Your task to perform on an android device: Open the calendar and show me this week's events Image 0: 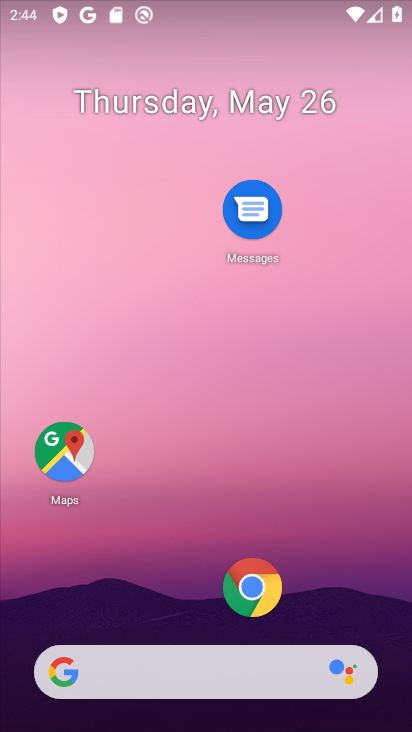
Step 0: drag from (149, 613) to (158, 3)
Your task to perform on an android device: Open the calendar and show me this week's events Image 1: 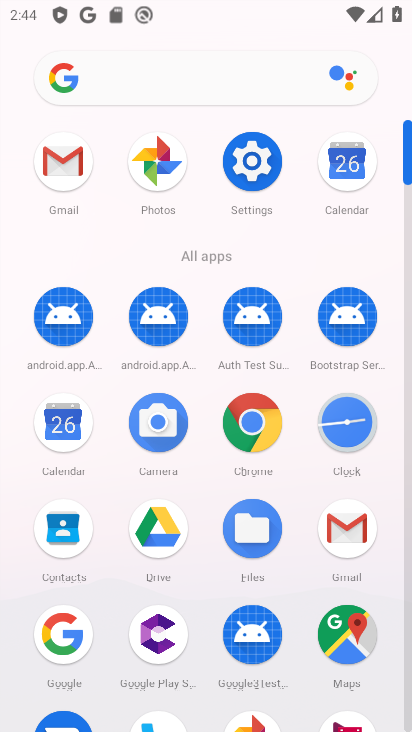
Step 1: click (68, 446)
Your task to perform on an android device: Open the calendar and show me this week's events Image 2: 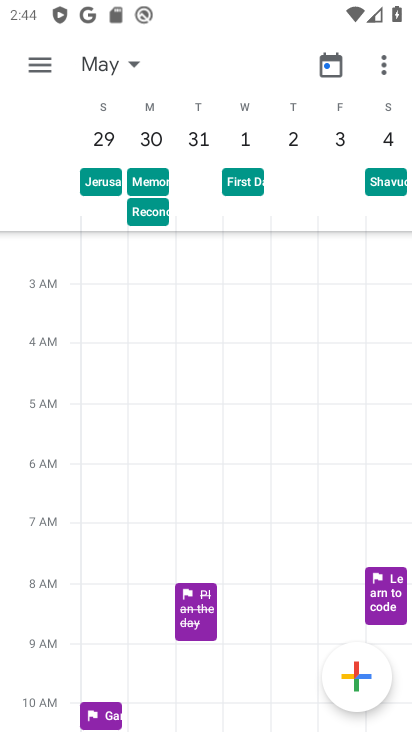
Step 2: drag from (102, 190) to (369, 170)
Your task to perform on an android device: Open the calendar and show me this week's events Image 3: 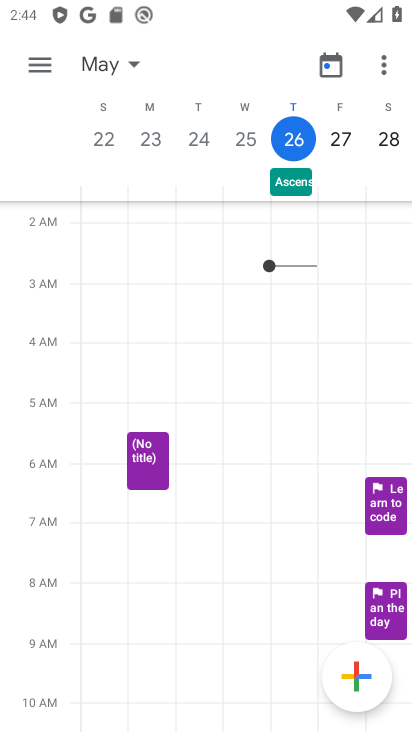
Step 3: click (37, 81)
Your task to perform on an android device: Open the calendar and show me this week's events Image 4: 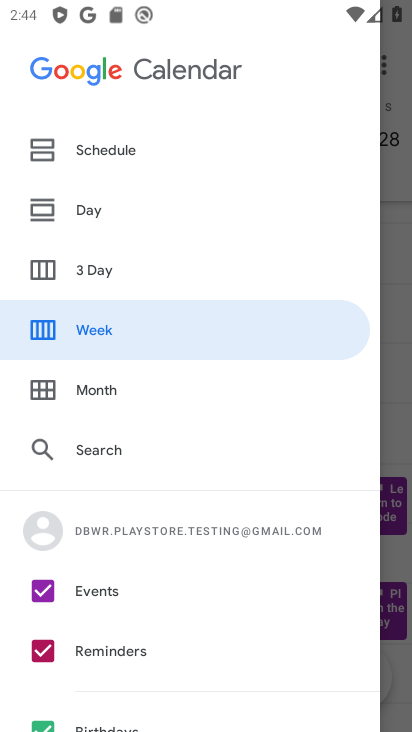
Step 4: drag from (129, 585) to (162, 309)
Your task to perform on an android device: Open the calendar and show me this week's events Image 5: 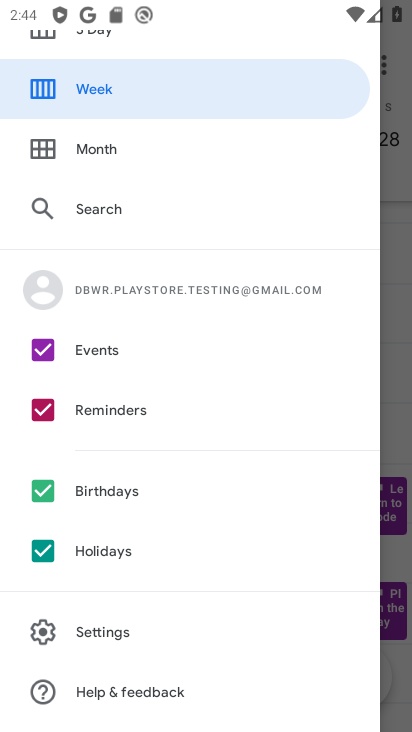
Step 5: click (47, 393)
Your task to perform on an android device: Open the calendar and show me this week's events Image 6: 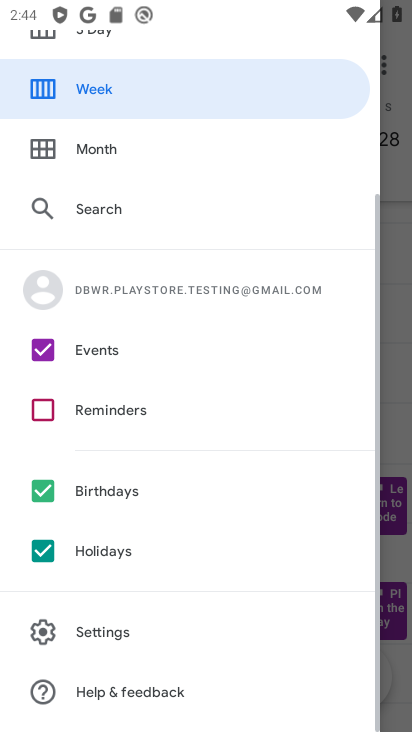
Step 6: click (45, 494)
Your task to perform on an android device: Open the calendar and show me this week's events Image 7: 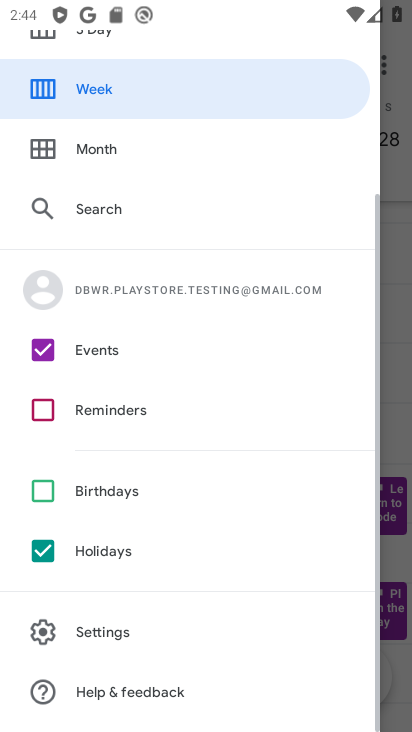
Step 7: click (38, 554)
Your task to perform on an android device: Open the calendar and show me this week's events Image 8: 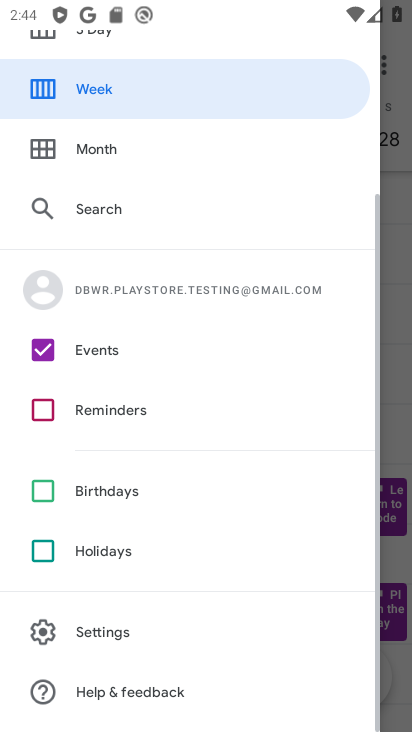
Step 8: click (162, 73)
Your task to perform on an android device: Open the calendar and show me this week's events Image 9: 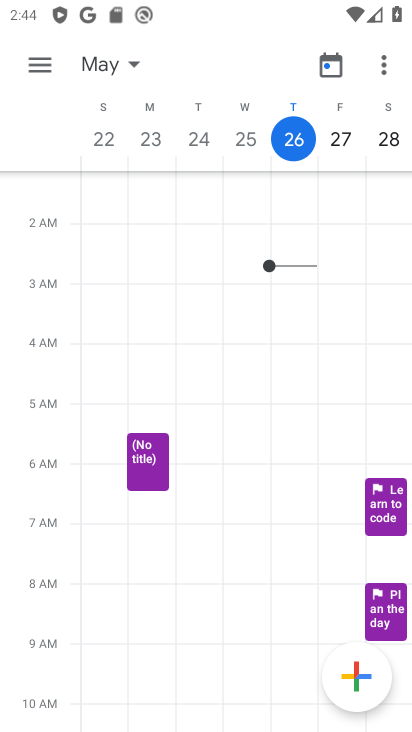
Step 9: task complete